Your task to perform on an android device: Search for Italian restaurants on Maps Image 0: 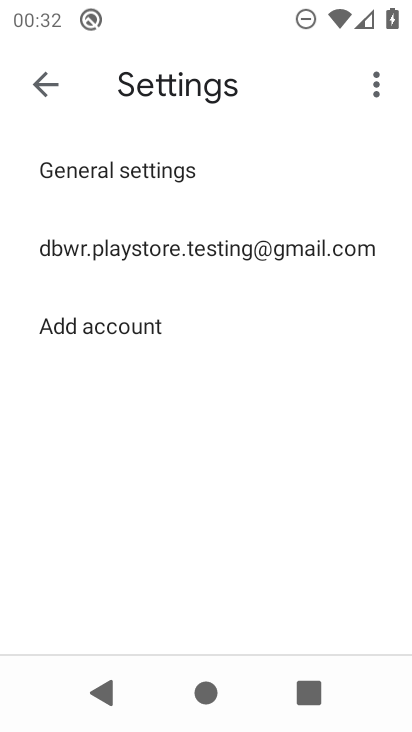
Step 0: press home button
Your task to perform on an android device: Search for Italian restaurants on Maps Image 1: 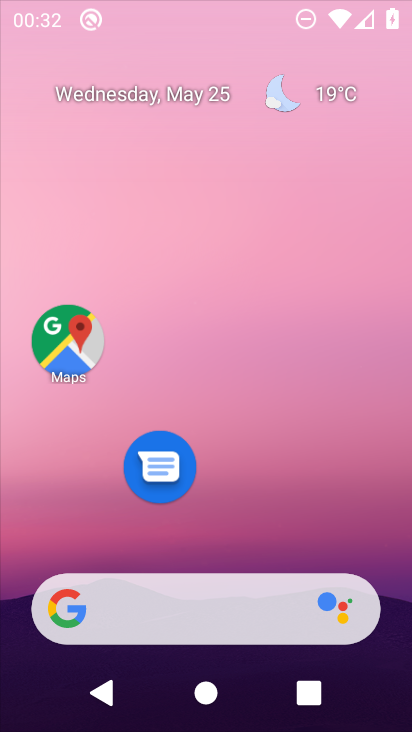
Step 1: drag from (246, 578) to (231, 8)
Your task to perform on an android device: Search for Italian restaurants on Maps Image 2: 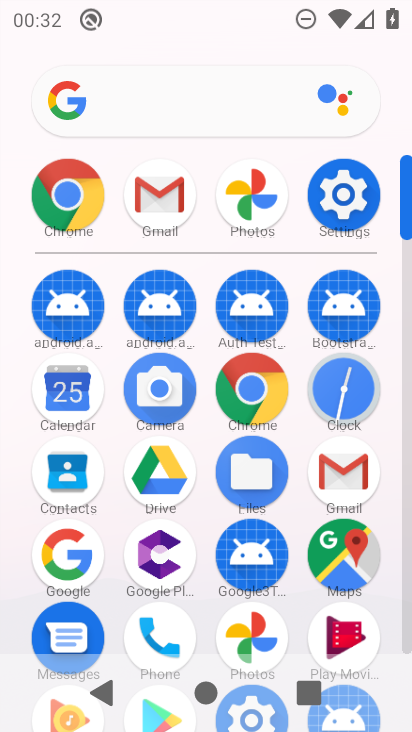
Step 2: click (339, 564)
Your task to perform on an android device: Search for Italian restaurants on Maps Image 3: 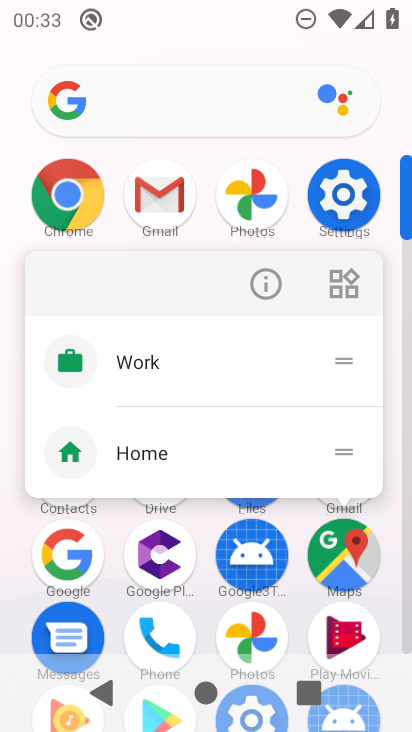
Step 3: click (256, 288)
Your task to perform on an android device: Search for Italian restaurants on Maps Image 4: 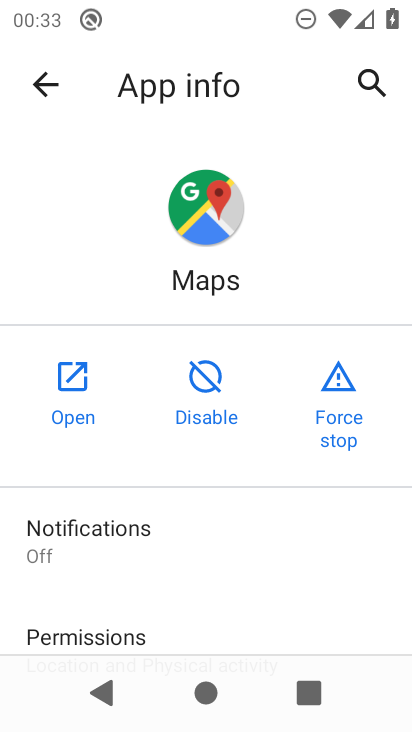
Step 4: click (70, 396)
Your task to perform on an android device: Search for Italian restaurants on Maps Image 5: 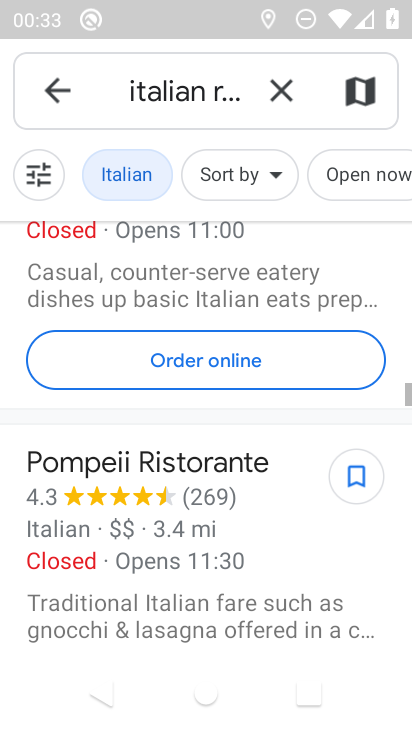
Step 5: task complete